Your task to perform on an android device: toggle notification dots Image 0: 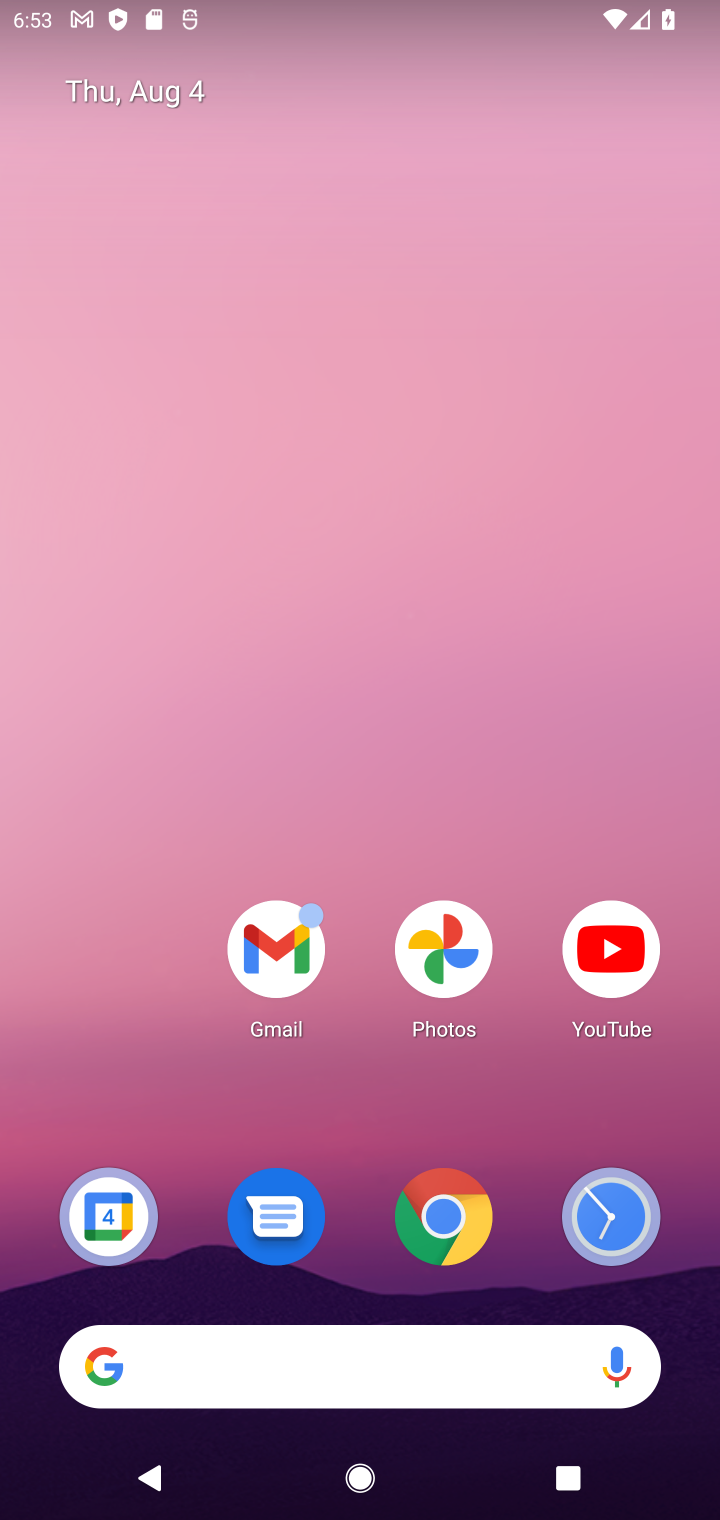
Step 0: drag from (348, 1267) to (323, 250)
Your task to perform on an android device: toggle notification dots Image 1: 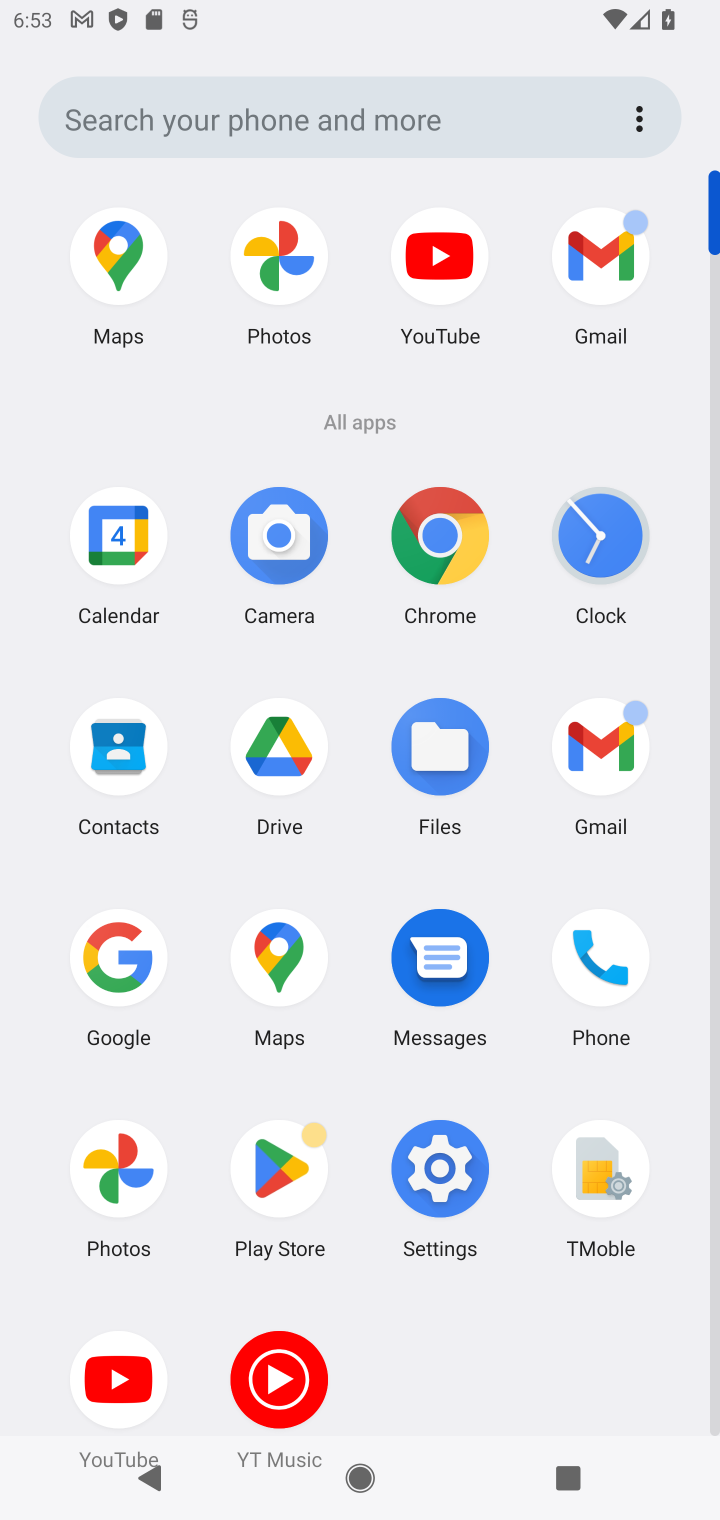
Step 1: click (431, 1184)
Your task to perform on an android device: toggle notification dots Image 2: 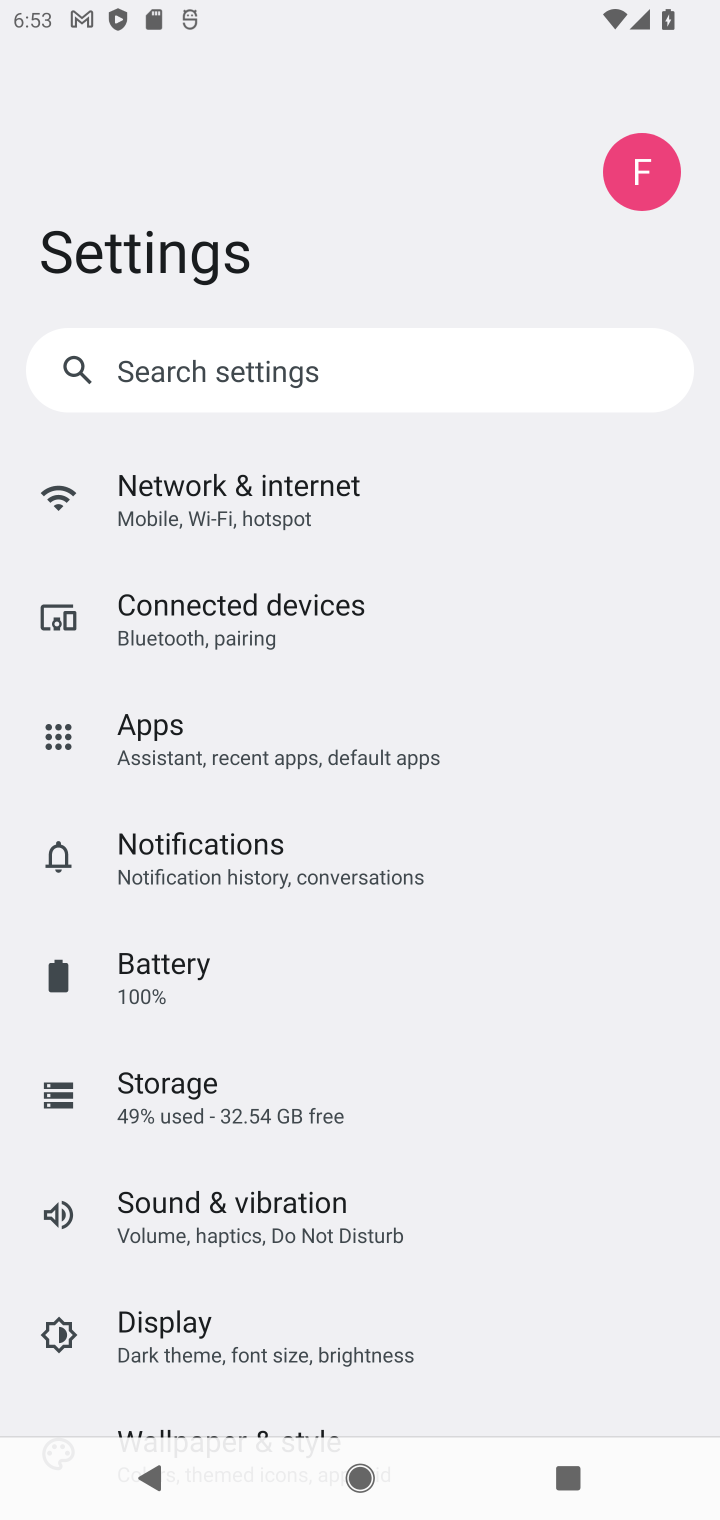
Step 2: click (234, 852)
Your task to perform on an android device: toggle notification dots Image 3: 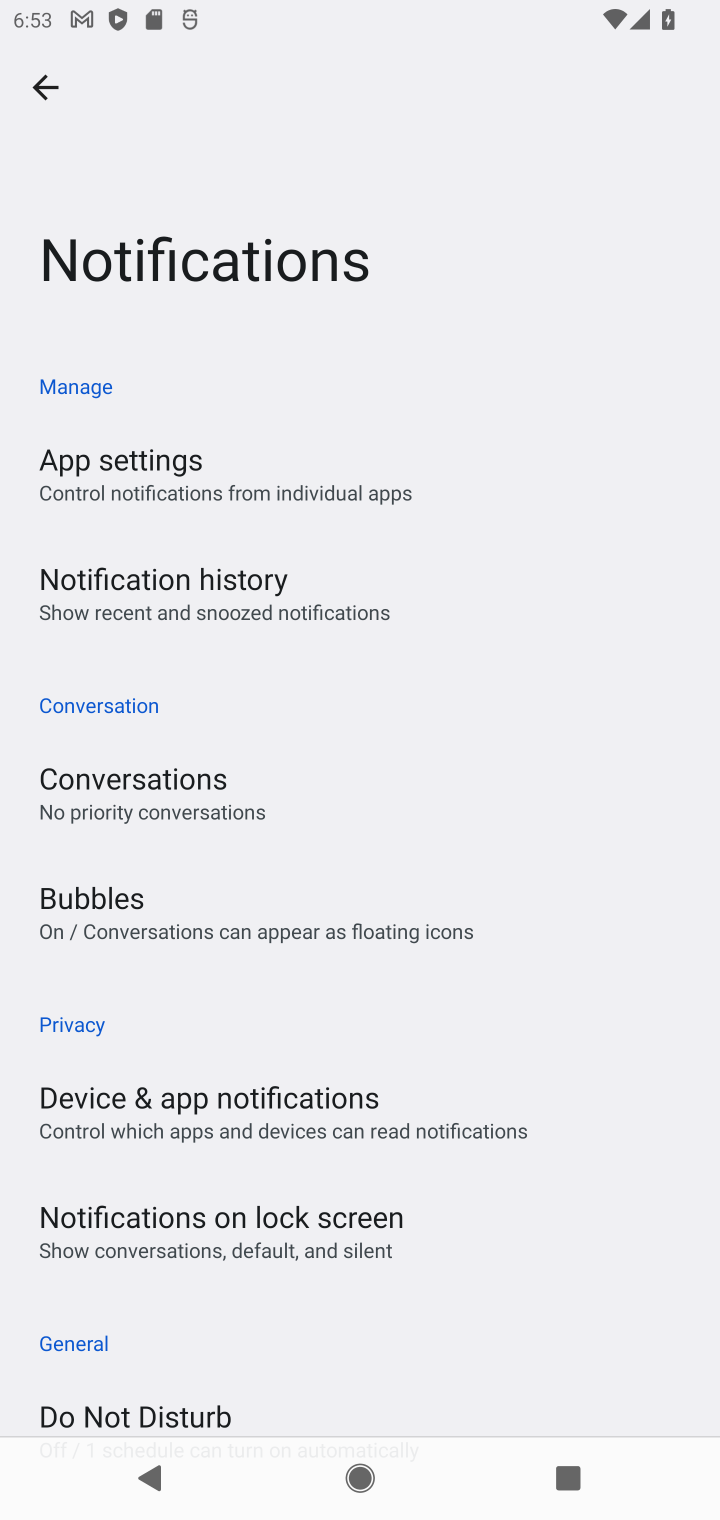
Step 3: task complete